Your task to perform on an android device: change alarm snooze length Image 0: 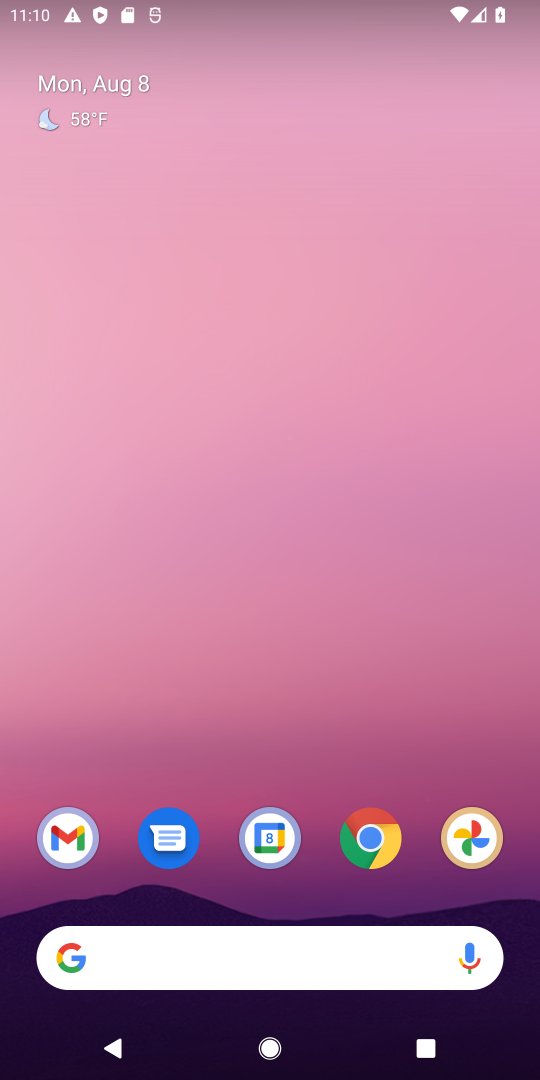
Step 0: press home button
Your task to perform on an android device: change alarm snooze length Image 1: 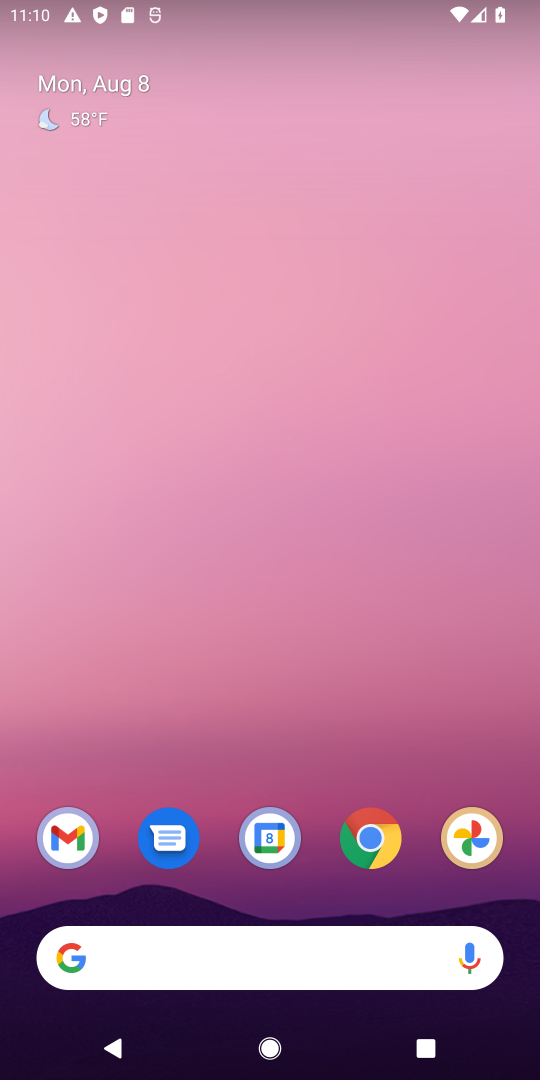
Step 1: drag from (324, 905) to (331, 304)
Your task to perform on an android device: change alarm snooze length Image 2: 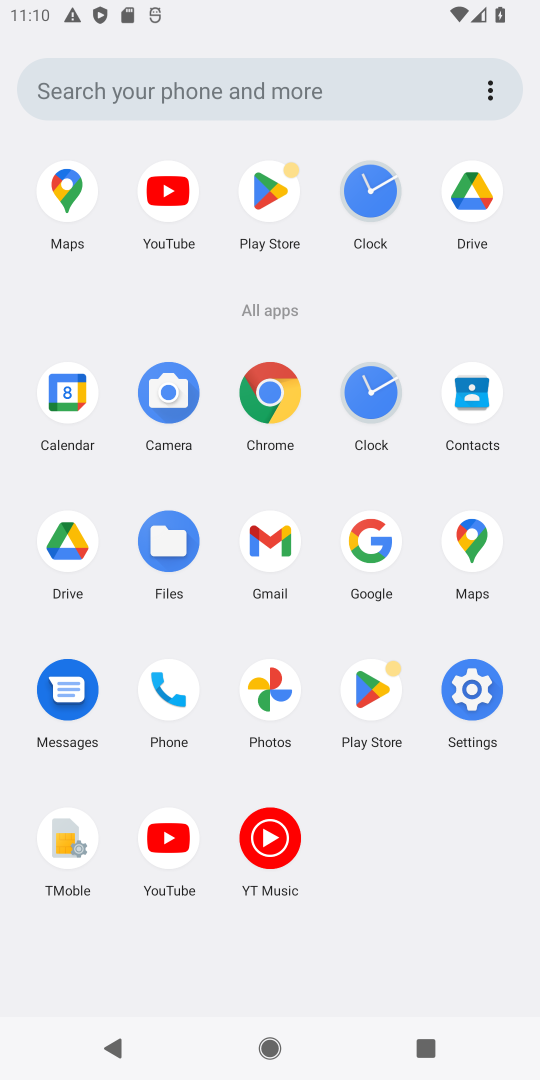
Step 2: click (377, 410)
Your task to perform on an android device: change alarm snooze length Image 3: 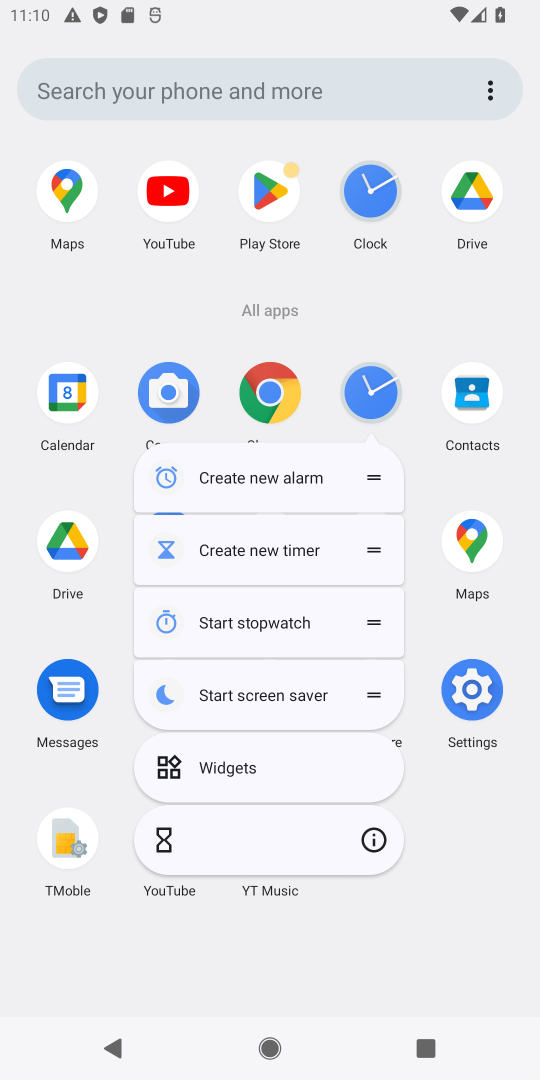
Step 3: click (377, 410)
Your task to perform on an android device: change alarm snooze length Image 4: 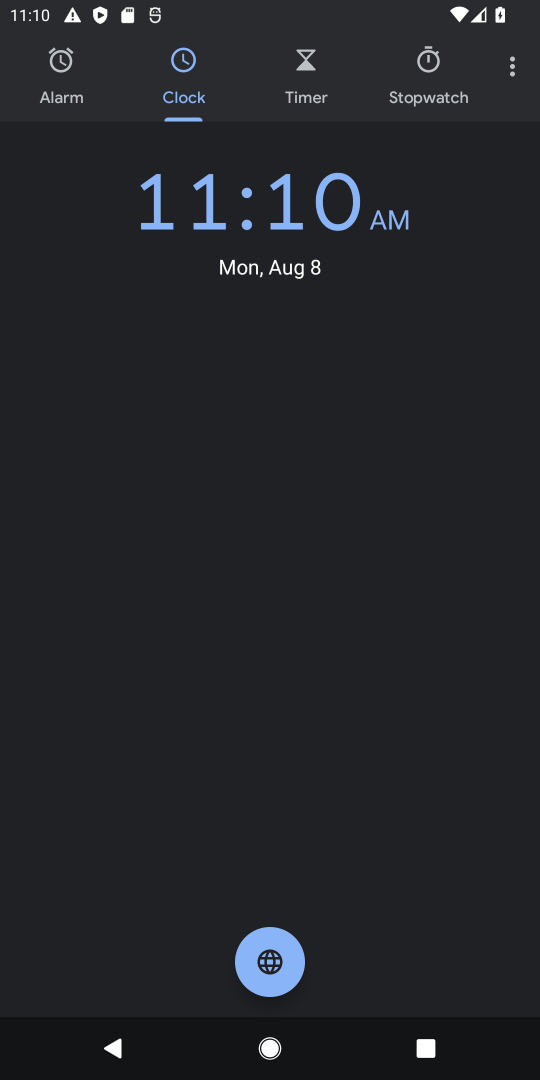
Step 4: click (522, 77)
Your task to perform on an android device: change alarm snooze length Image 5: 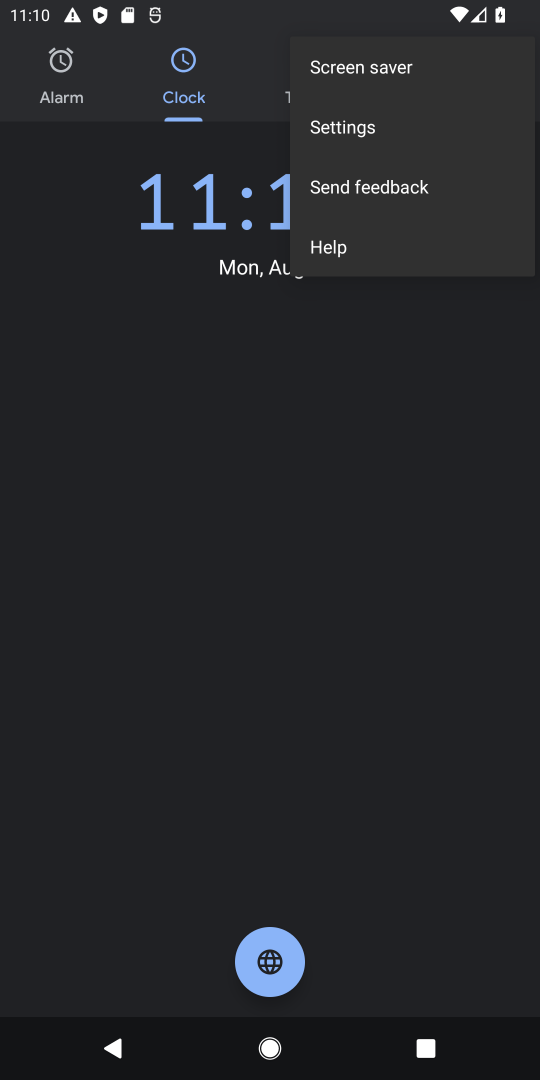
Step 5: click (339, 126)
Your task to perform on an android device: change alarm snooze length Image 6: 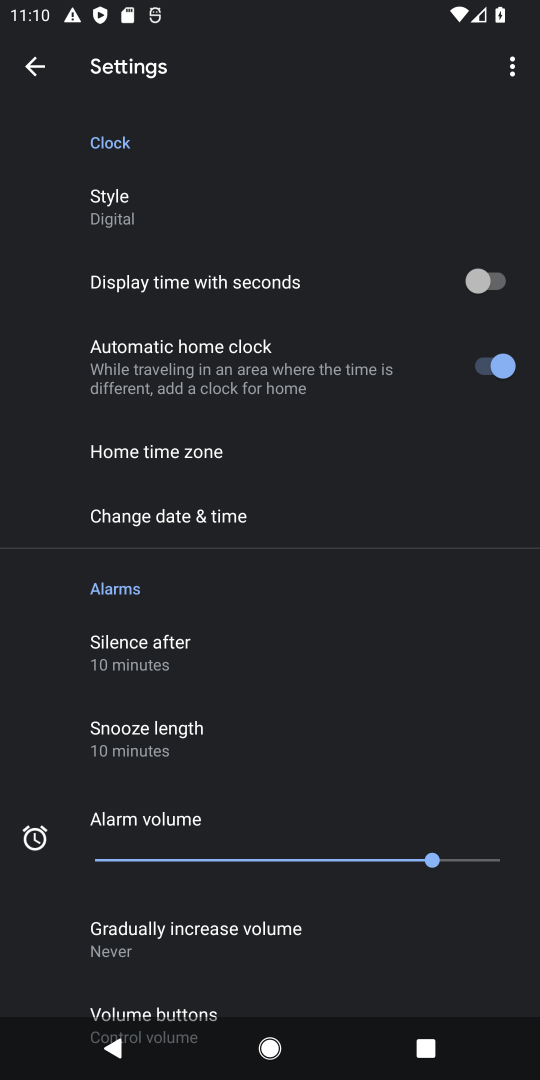
Step 6: click (148, 724)
Your task to perform on an android device: change alarm snooze length Image 7: 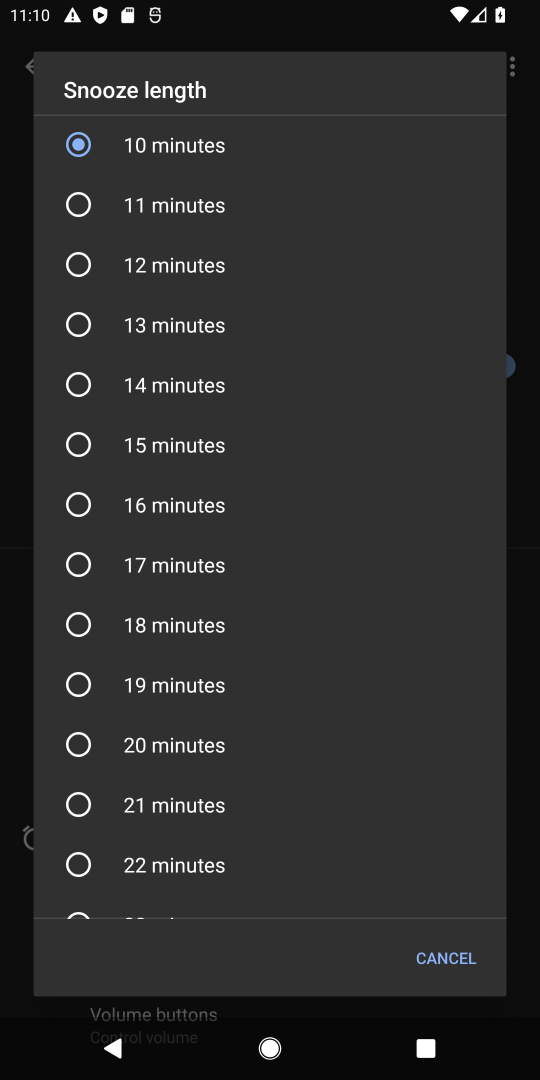
Step 7: click (68, 450)
Your task to perform on an android device: change alarm snooze length Image 8: 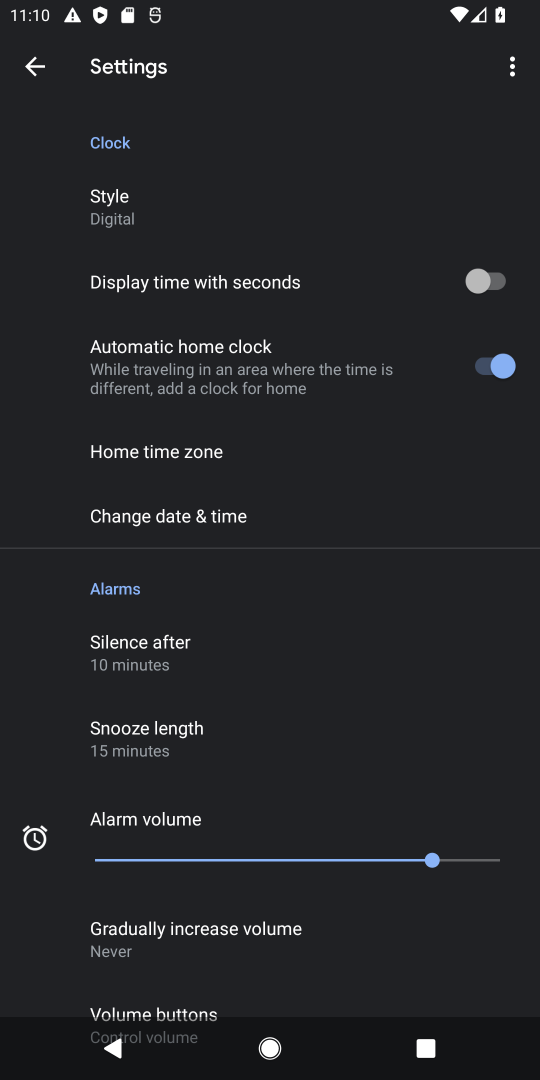
Step 8: task complete